Your task to perform on an android device: Show me popular games on the Play Store Image 0: 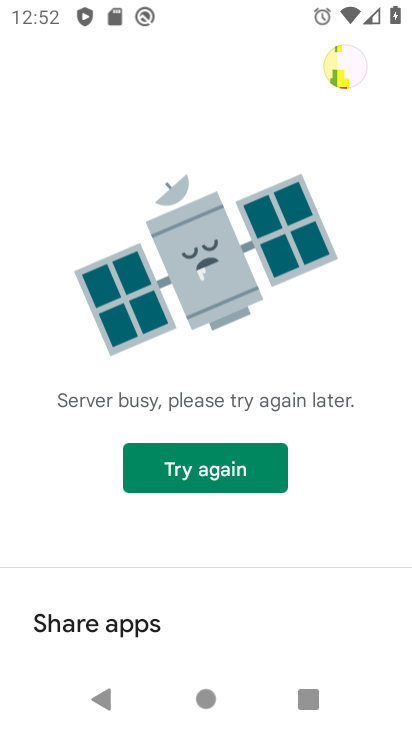
Step 0: press back button
Your task to perform on an android device: Show me popular games on the Play Store Image 1: 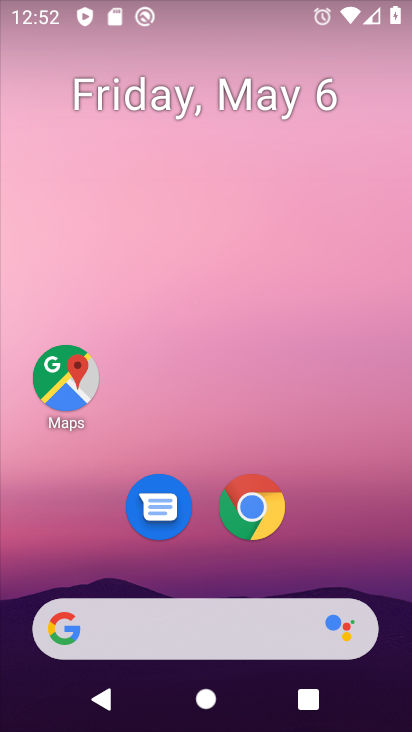
Step 1: drag from (91, 602) to (233, 59)
Your task to perform on an android device: Show me popular games on the Play Store Image 2: 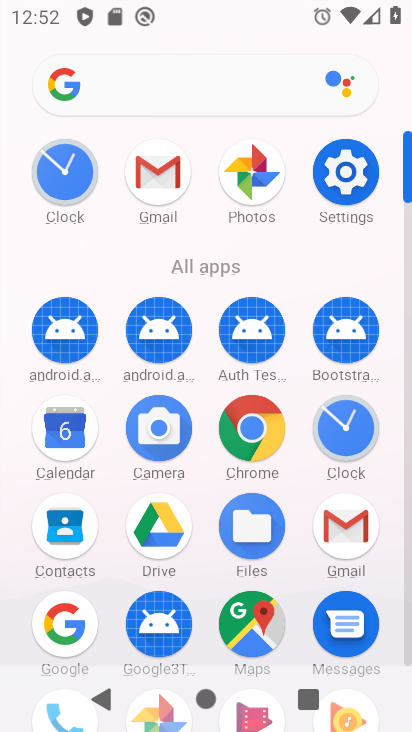
Step 2: drag from (151, 634) to (247, 335)
Your task to perform on an android device: Show me popular games on the Play Store Image 3: 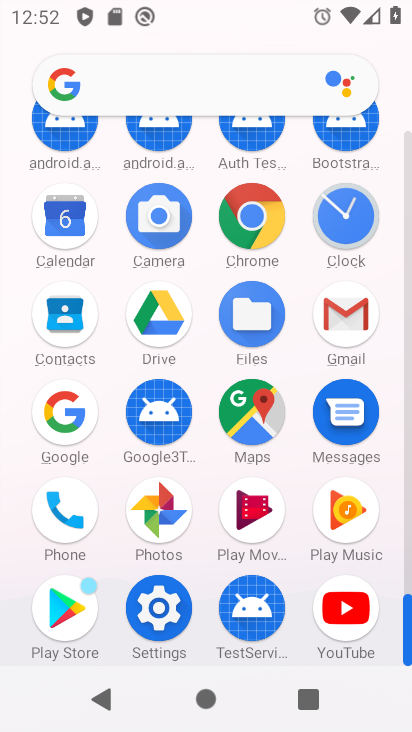
Step 3: click (62, 616)
Your task to perform on an android device: Show me popular games on the Play Store Image 4: 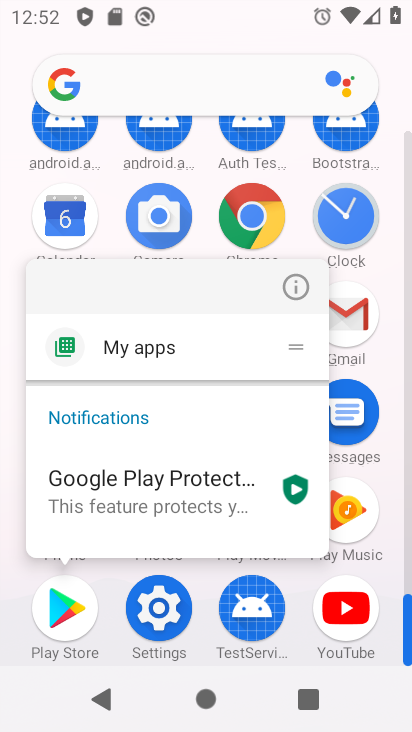
Step 4: click (65, 611)
Your task to perform on an android device: Show me popular games on the Play Store Image 5: 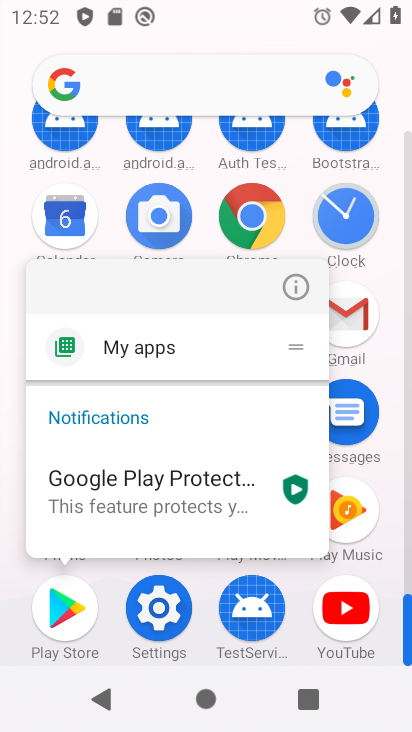
Step 5: click (72, 596)
Your task to perform on an android device: Show me popular games on the Play Store Image 6: 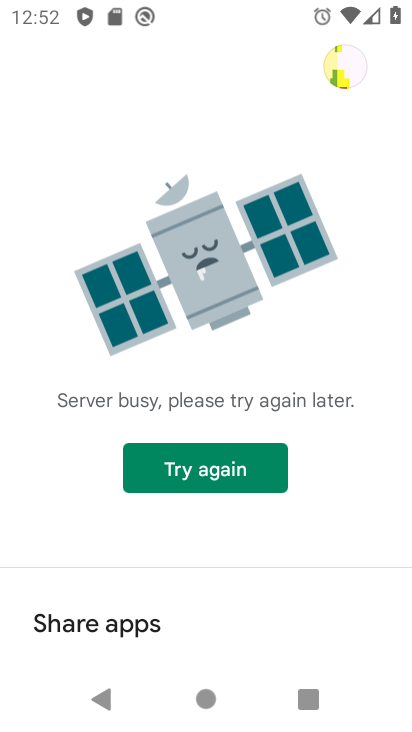
Step 6: task complete